Your task to perform on an android device: Open notification settings Image 0: 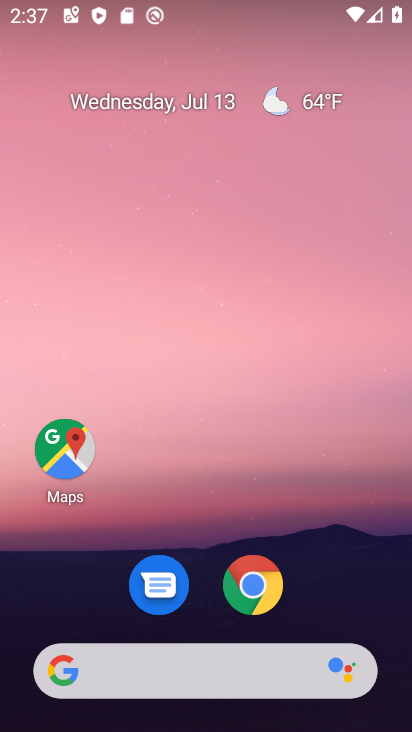
Step 0: drag from (200, 681) to (279, 235)
Your task to perform on an android device: Open notification settings Image 1: 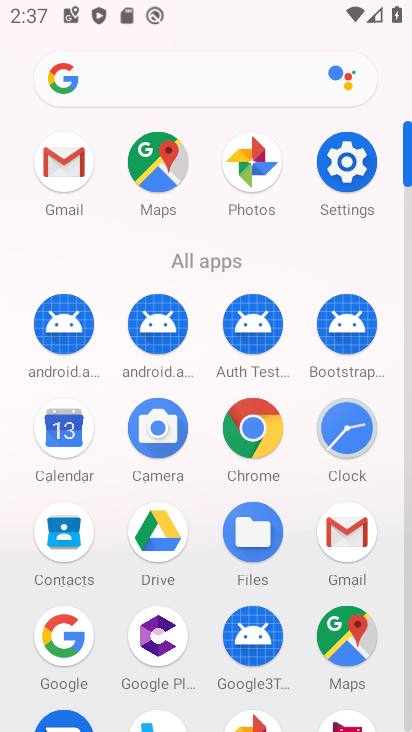
Step 1: click (343, 171)
Your task to perform on an android device: Open notification settings Image 2: 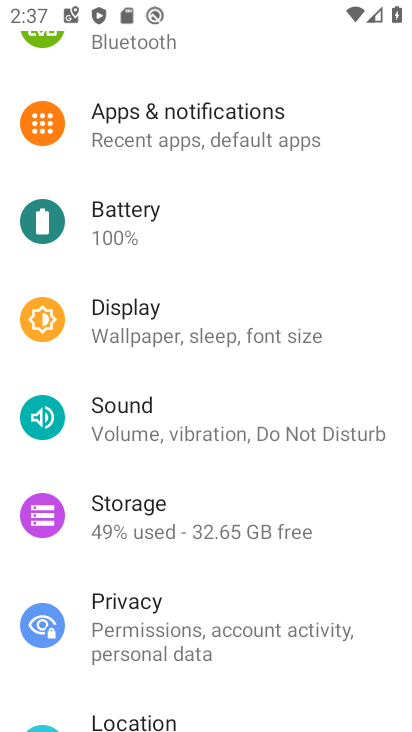
Step 2: click (227, 123)
Your task to perform on an android device: Open notification settings Image 3: 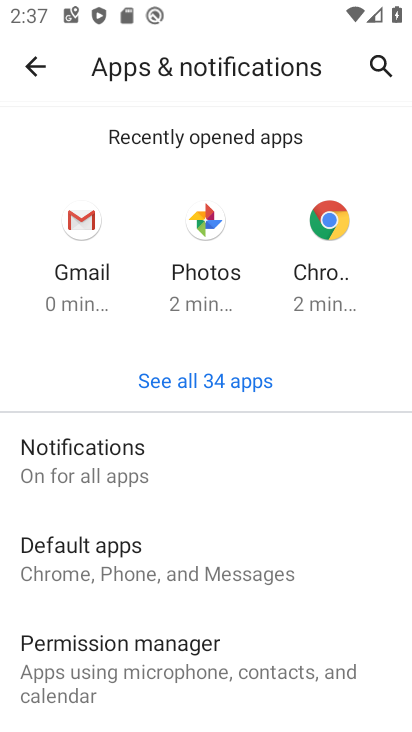
Step 3: click (126, 472)
Your task to perform on an android device: Open notification settings Image 4: 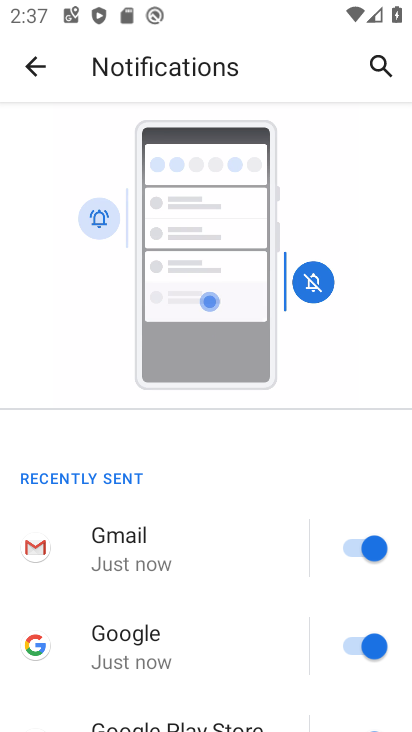
Step 4: drag from (234, 577) to (323, 83)
Your task to perform on an android device: Open notification settings Image 5: 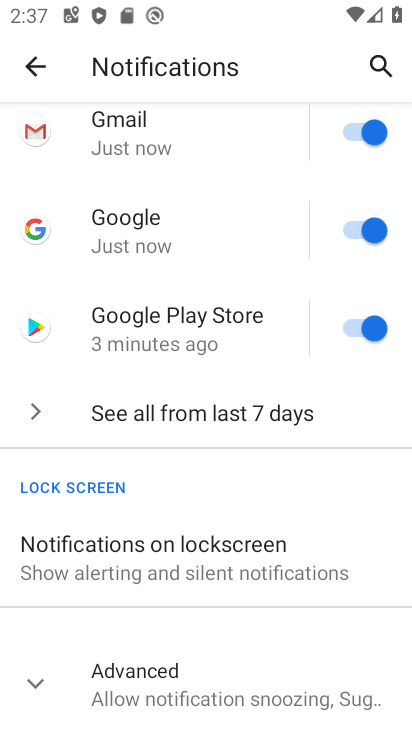
Step 5: click (146, 681)
Your task to perform on an android device: Open notification settings Image 6: 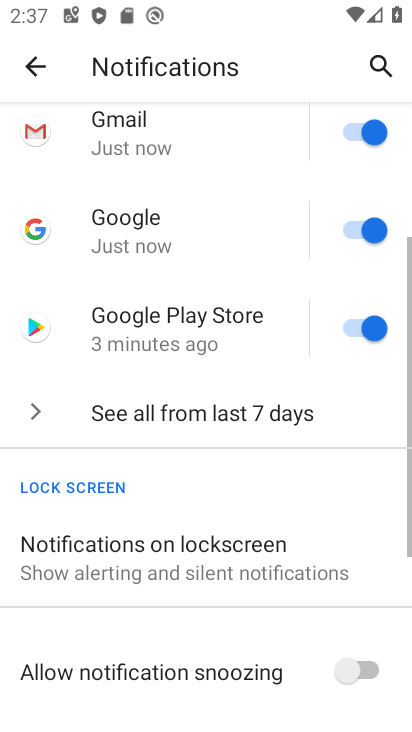
Step 6: task complete